Your task to perform on an android device: add a contact Image 0: 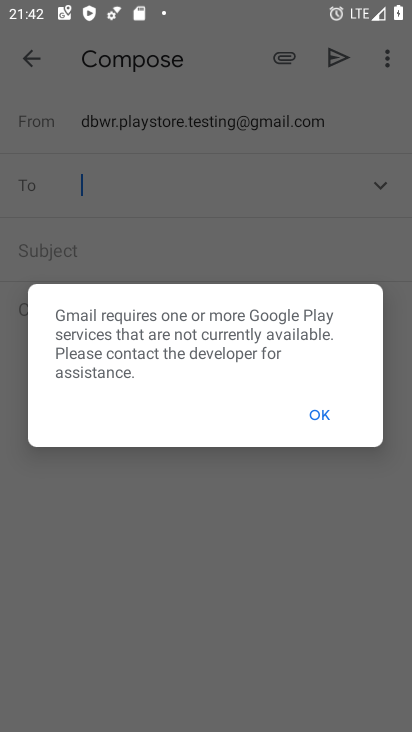
Step 0: click (320, 411)
Your task to perform on an android device: add a contact Image 1: 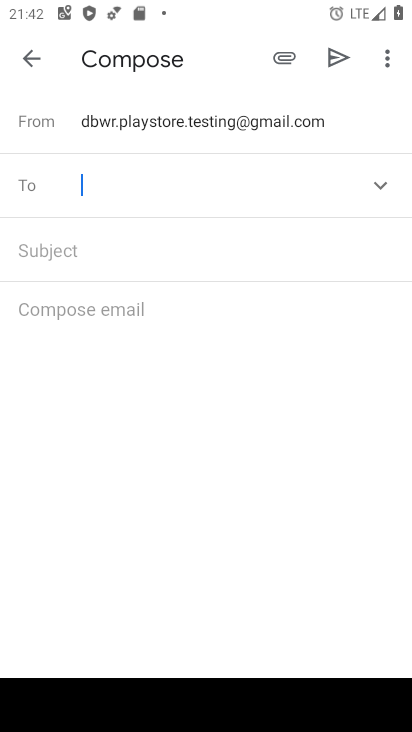
Step 1: press home button
Your task to perform on an android device: add a contact Image 2: 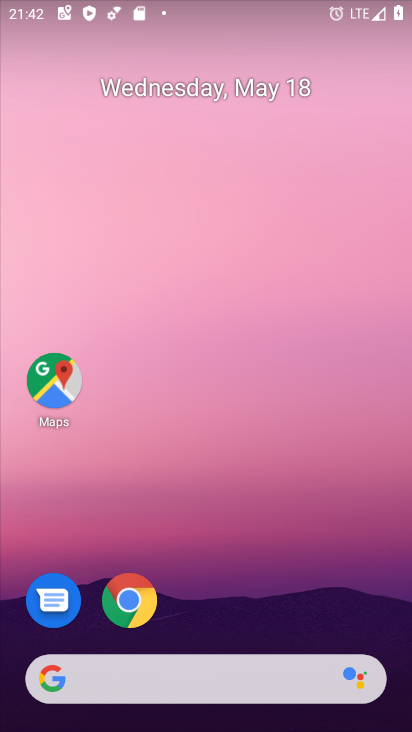
Step 2: drag from (253, 485) to (342, 9)
Your task to perform on an android device: add a contact Image 3: 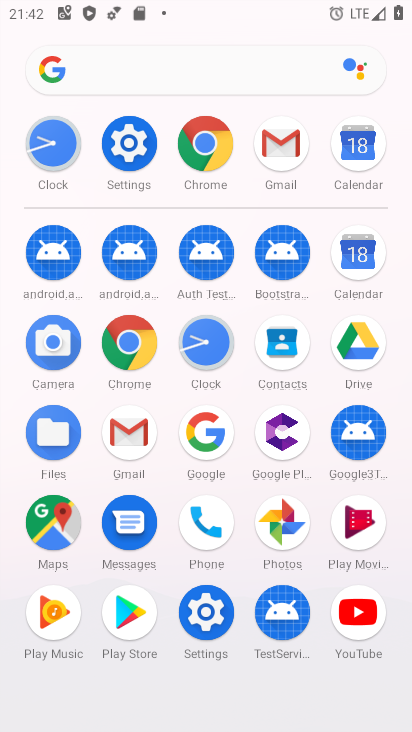
Step 3: click (284, 349)
Your task to perform on an android device: add a contact Image 4: 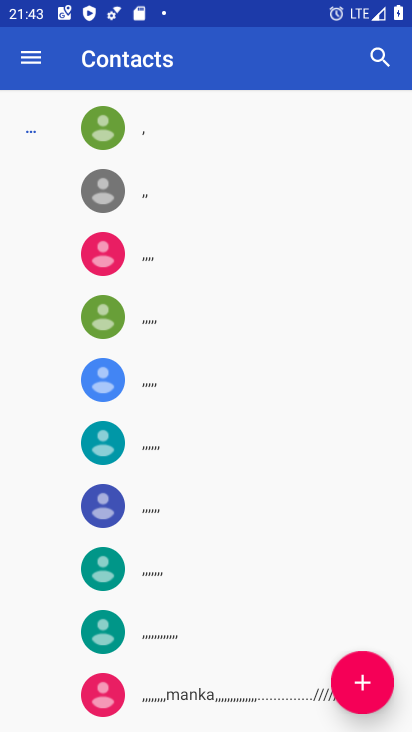
Step 4: click (375, 707)
Your task to perform on an android device: add a contact Image 5: 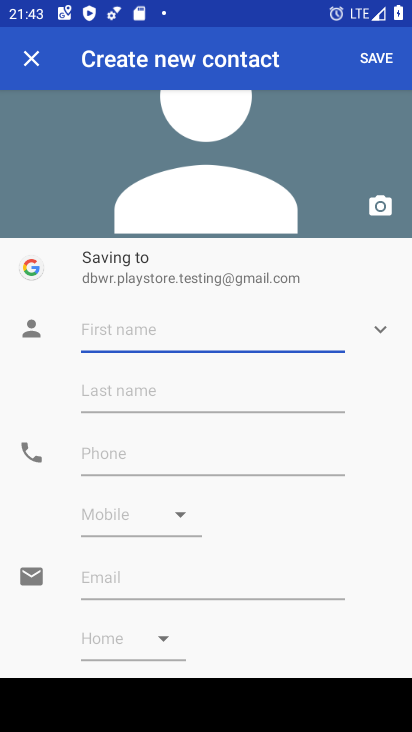
Step 5: click (129, 327)
Your task to perform on an android device: add a contact Image 6: 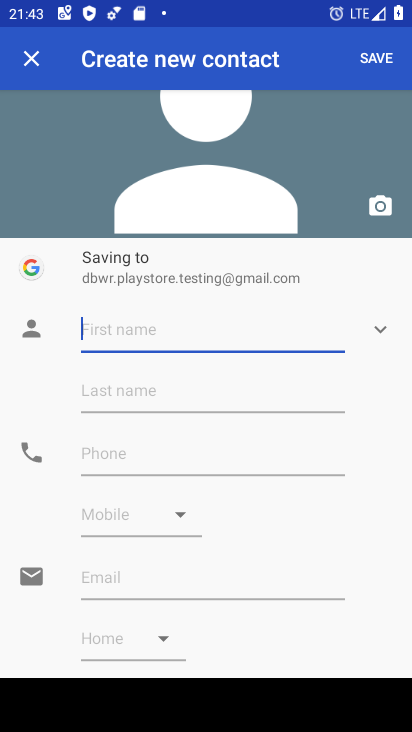
Step 6: type "vhvhv"
Your task to perform on an android device: add a contact Image 7: 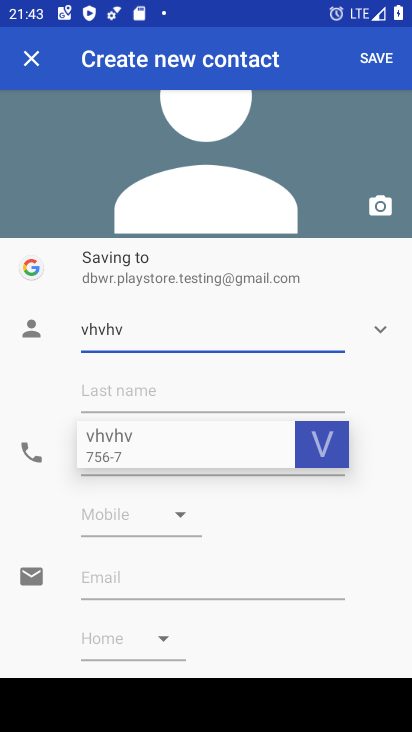
Step 7: click (84, 450)
Your task to perform on an android device: add a contact Image 8: 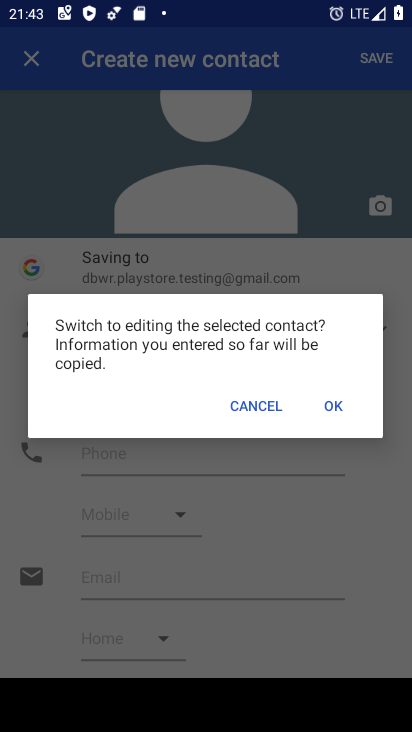
Step 8: click (333, 415)
Your task to perform on an android device: add a contact Image 9: 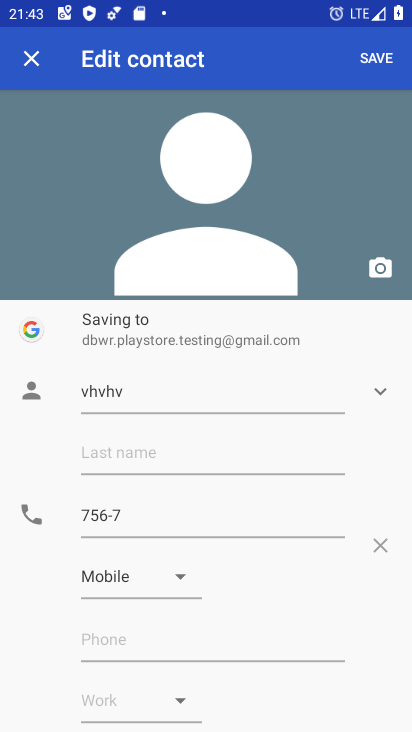
Step 9: click (373, 65)
Your task to perform on an android device: add a contact Image 10: 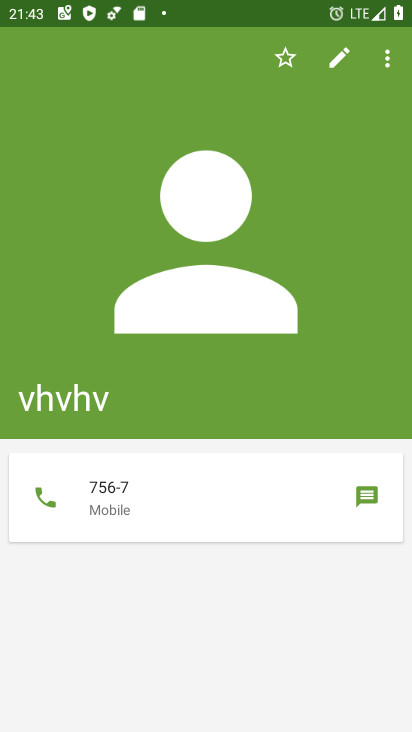
Step 10: click (373, 65)
Your task to perform on an android device: add a contact Image 11: 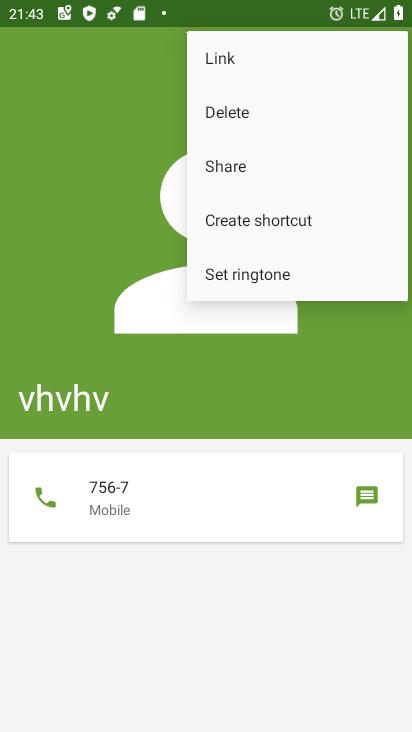
Step 11: task complete